Your task to perform on an android device: Go to sound settings Image 0: 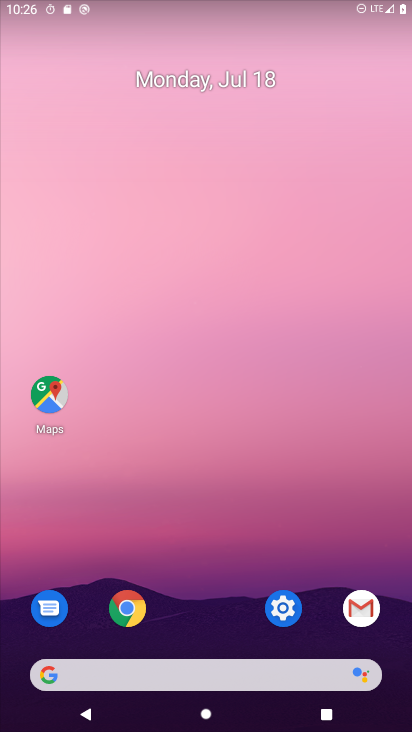
Step 0: click (294, 604)
Your task to perform on an android device: Go to sound settings Image 1: 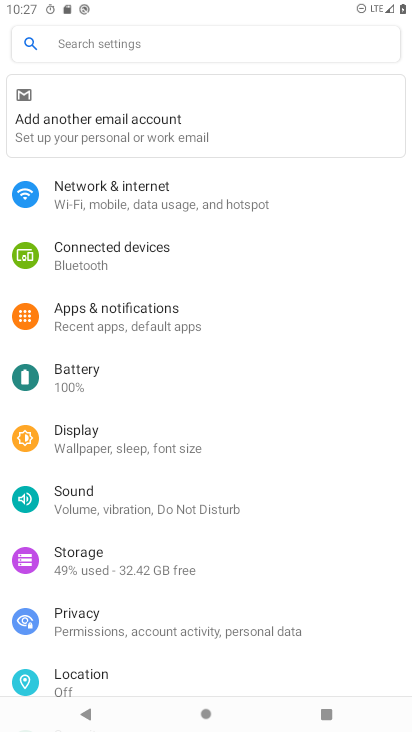
Step 1: click (101, 492)
Your task to perform on an android device: Go to sound settings Image 2: 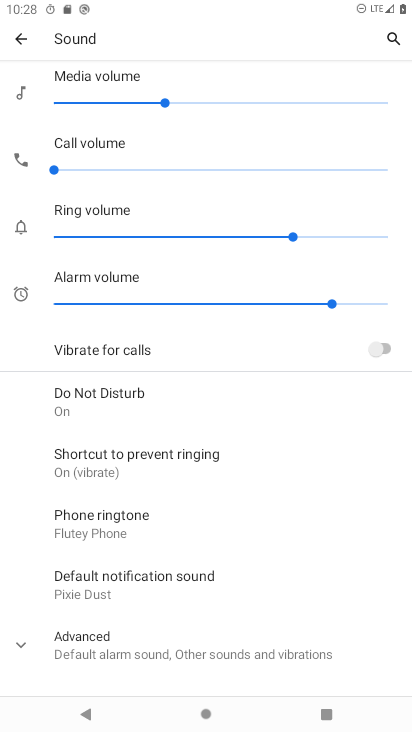
Step 2: task complete